Your task to perform on an android device: turn on bluetooth scan Image 0: 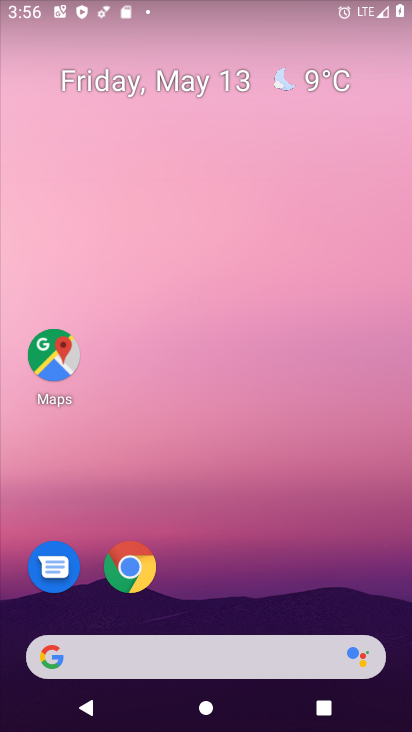
Step 0: drag from (274, 577) to (290, 18)
Your task to perform on an android device: turn on bluetooth scan Image 1: 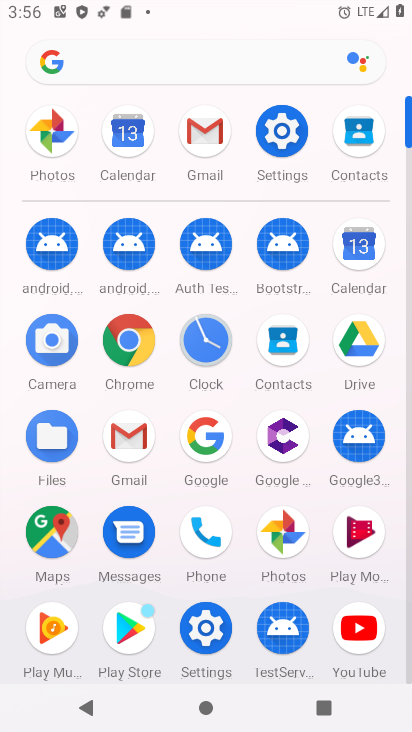
Step 1: click (290, 155)
Your task to perform on an android device: turn on bluetooth scan Image 2: 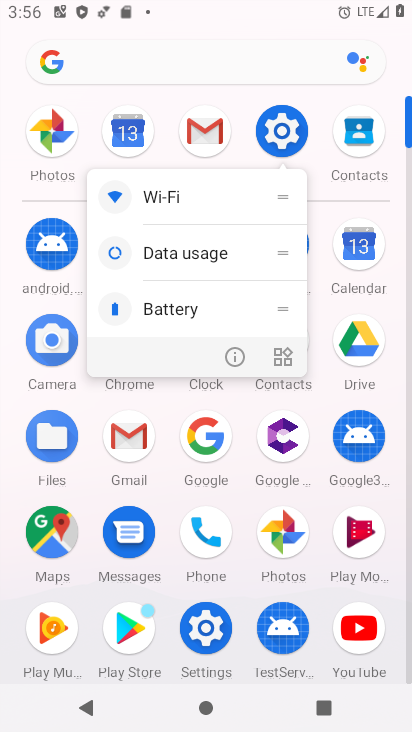
Step 2: click (276, 126)
Your task to perform on an android device: turn on bluetooth scan Image 3: 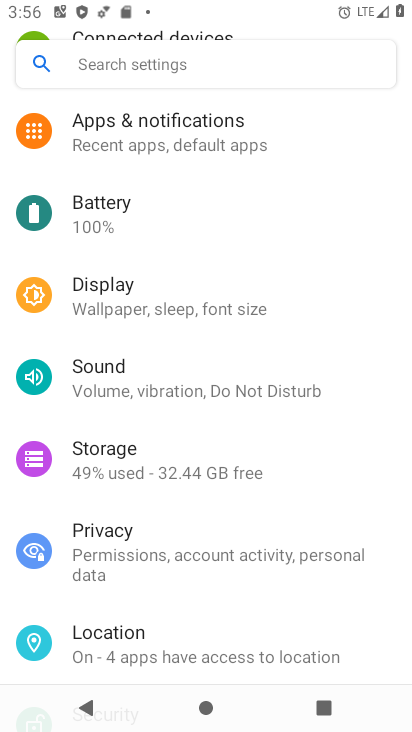
Step 3: click (85, 630)
Your task to perform on an android device: turn on bluetooth scan Image 4: 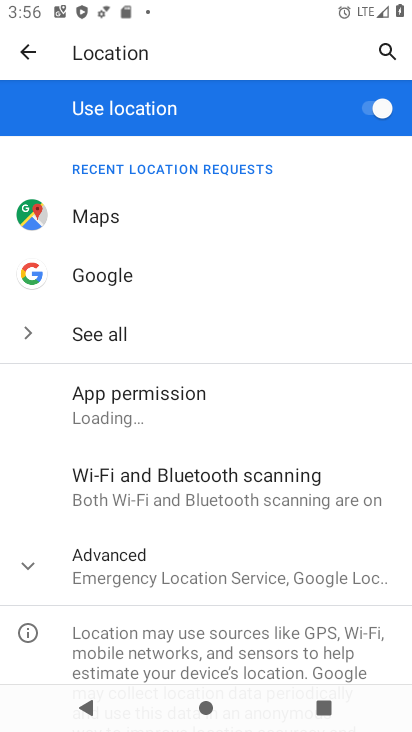
Step 4: click (143, 494)
Your task to perform on an android device: turn on bluetooth scan Image 5: 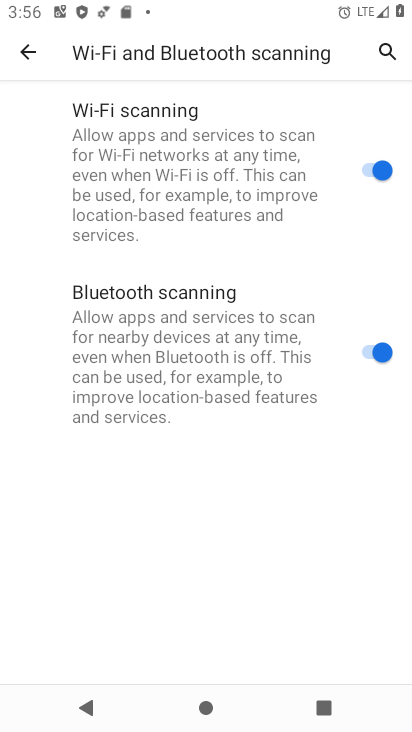
Step 5: task complete